Your task to perform on an android device: uninstall "Skype" Image 0: 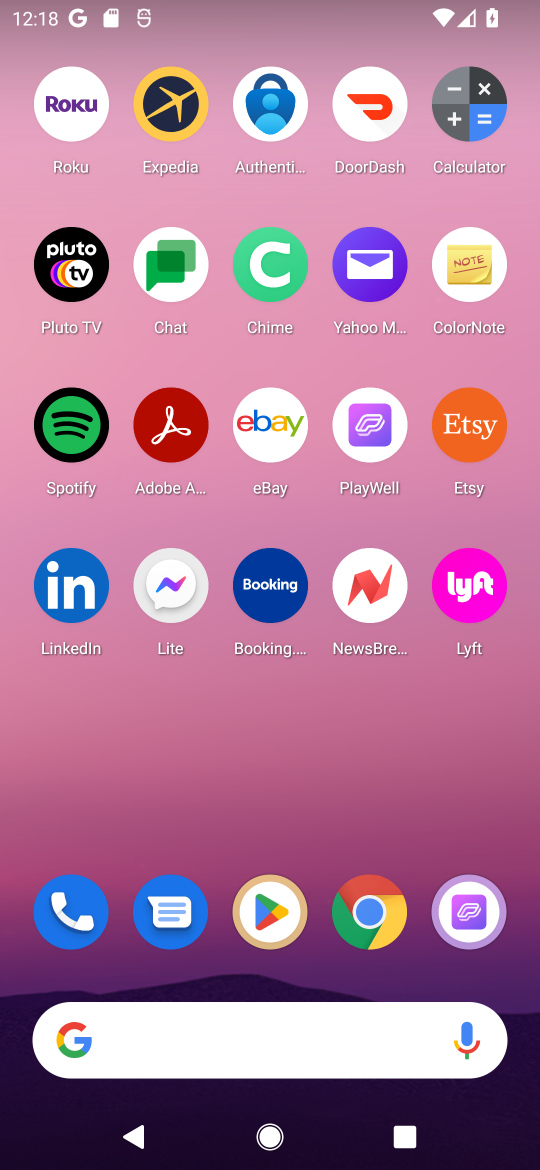
Step 0: click (255, 909)
Your task to perform on an android device: uninstall "Skype" Image 1: 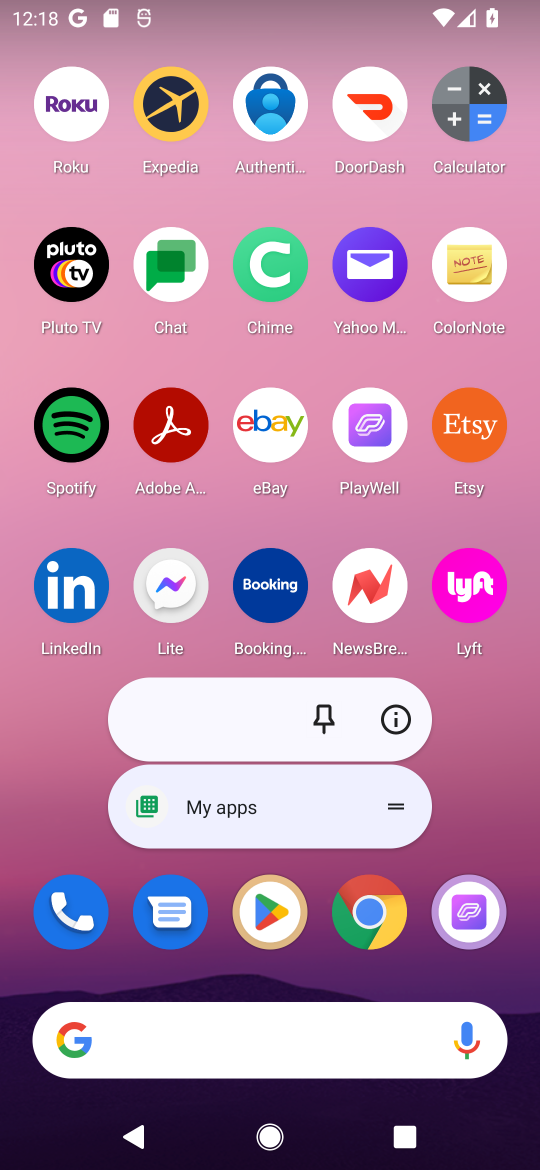
Step 1: click (281, 920)
Your task to perform on an android device: uninstall "Skype" Image 2: 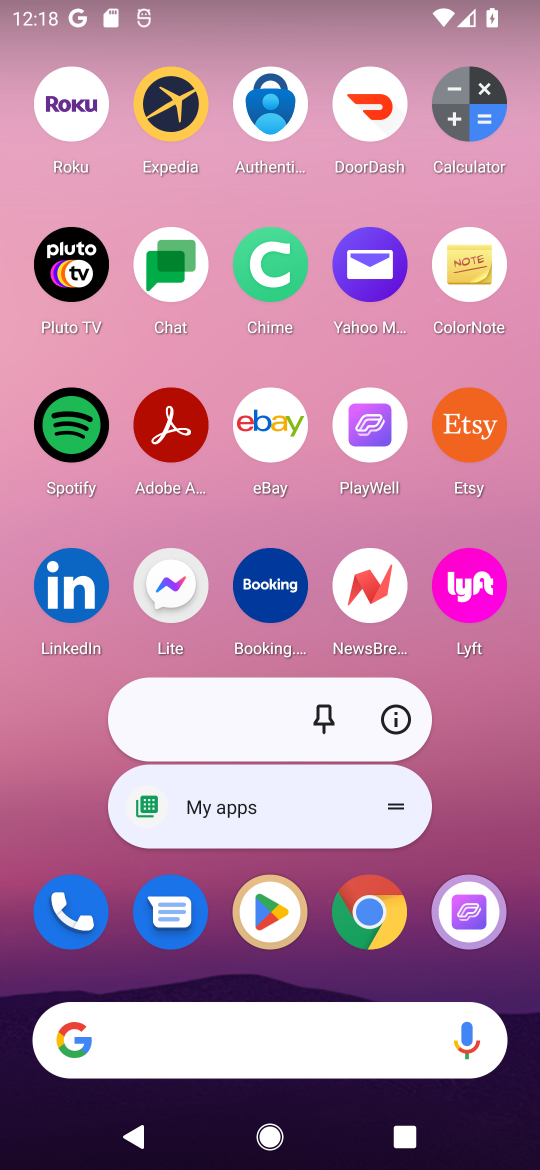
Step 2: click (281, 918)
Your task to perform on an android device: uninstall "Skype" Image 3: 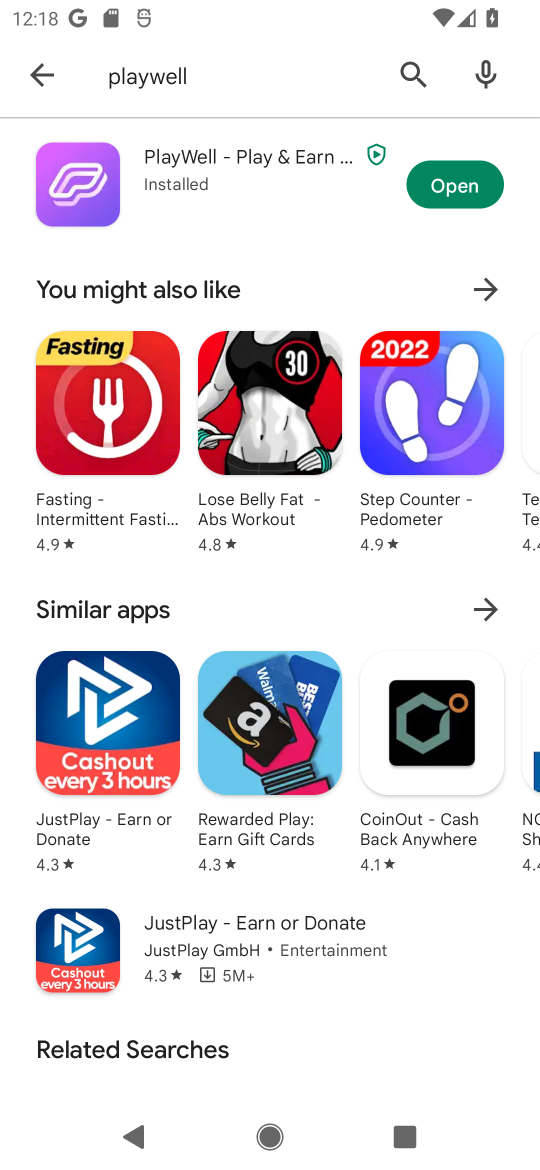
Step 3: click (420, 81)
Your task to perform on an android device: uninstall "Skype" Image 4: 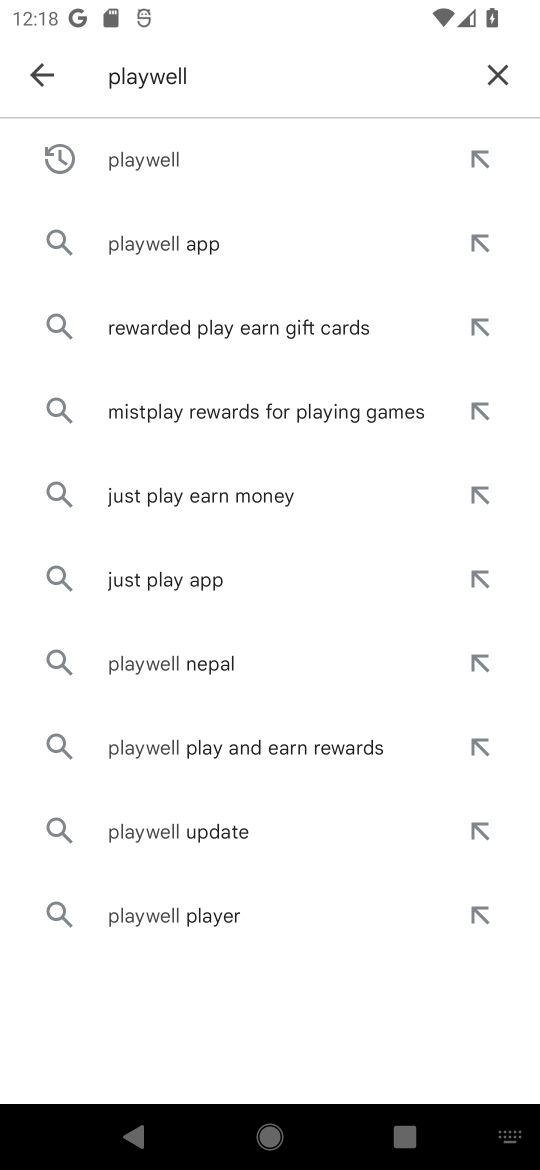
Step 4: click (525, 67)
Your task to perform on an android device: uninstall "Skype" Image 5: 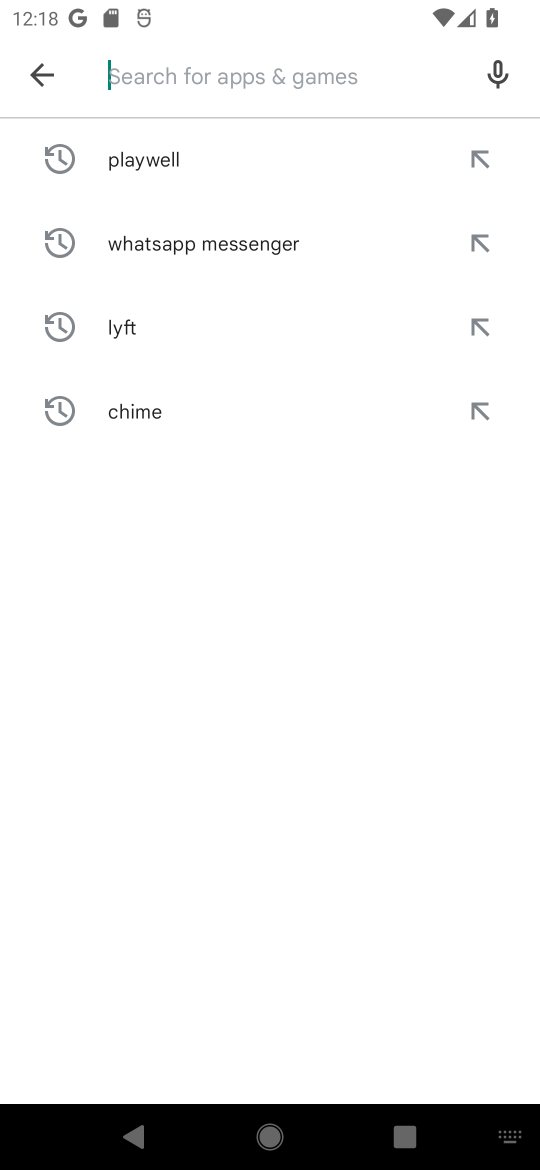
Step 5: click (219, 88)
Your task to perform on an android device: uninstall "Skype" Image 6: 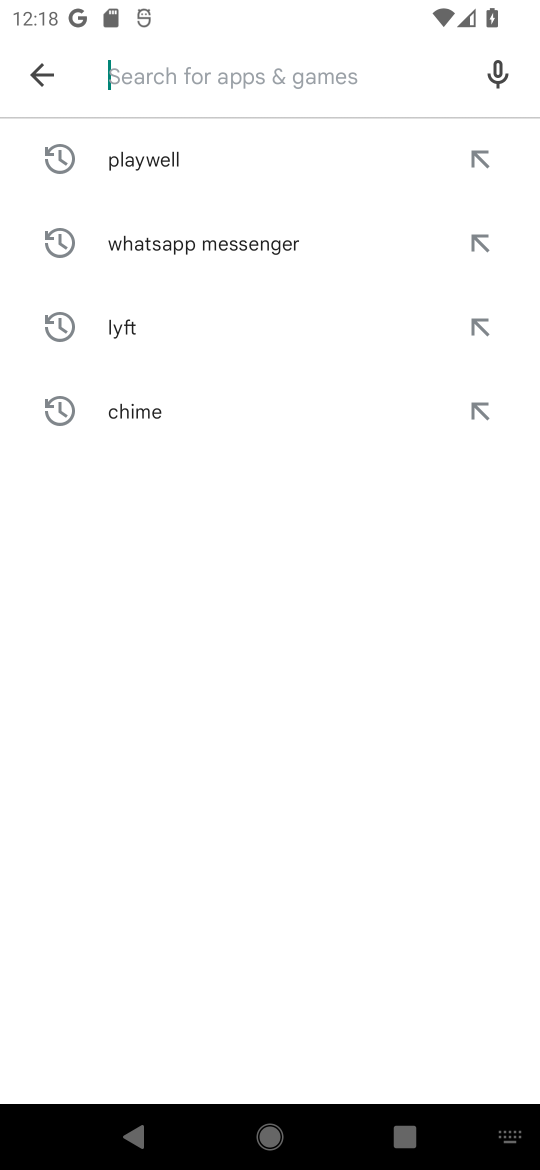
Step 6: type "skype"
Your task to perform on an android device: uninstall "Skype" Image 7: 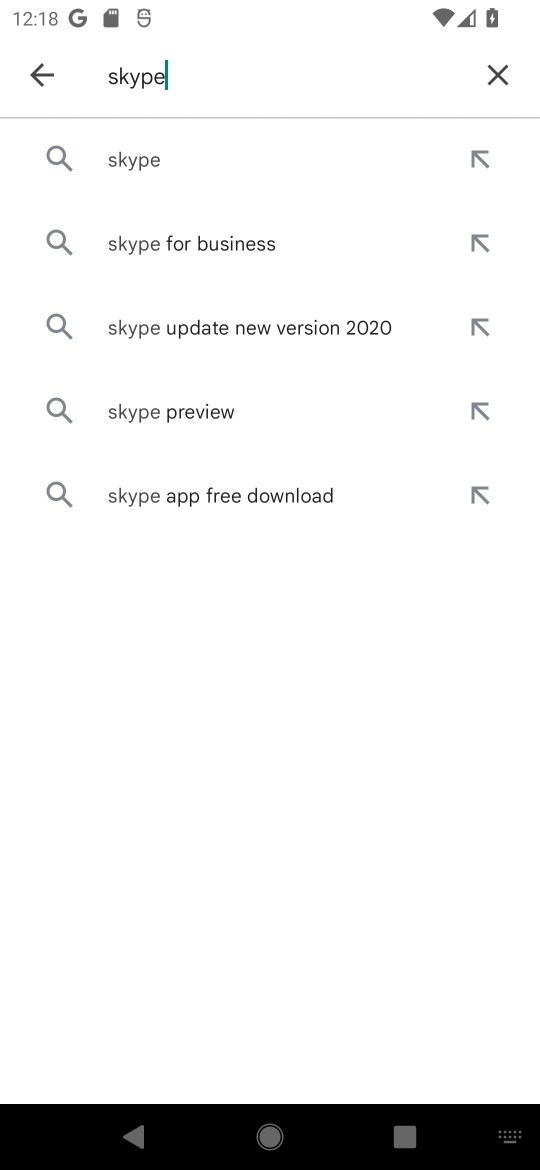
Step 7: click (184, 145)
Your task to perform on an android device: uninstall "Skype" Image 8: 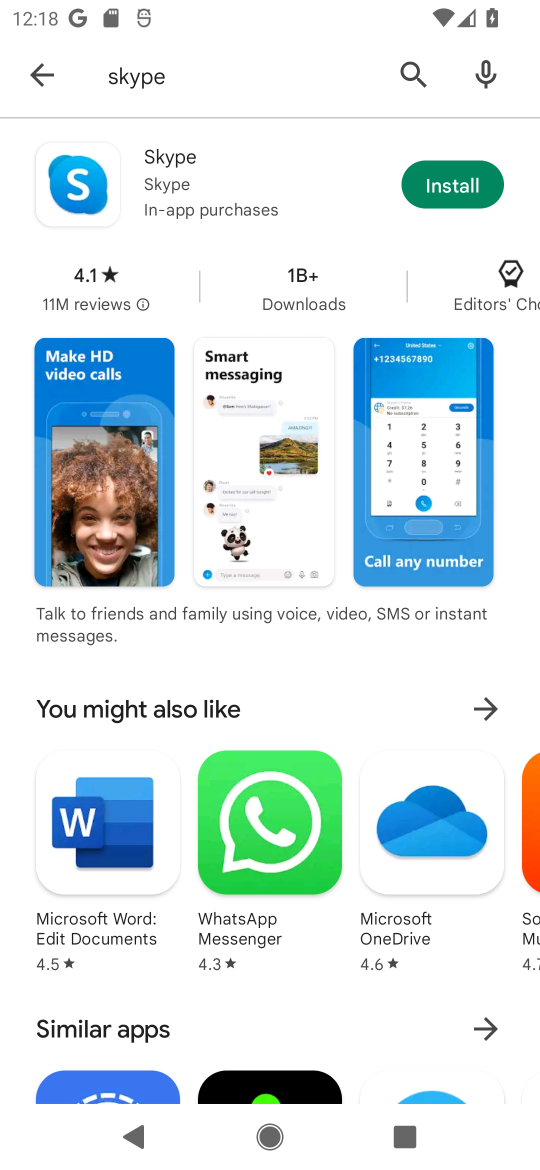
Step 8: click (197, 200)
Your task to perform on an android device: uninstall "Skype" Image 9: 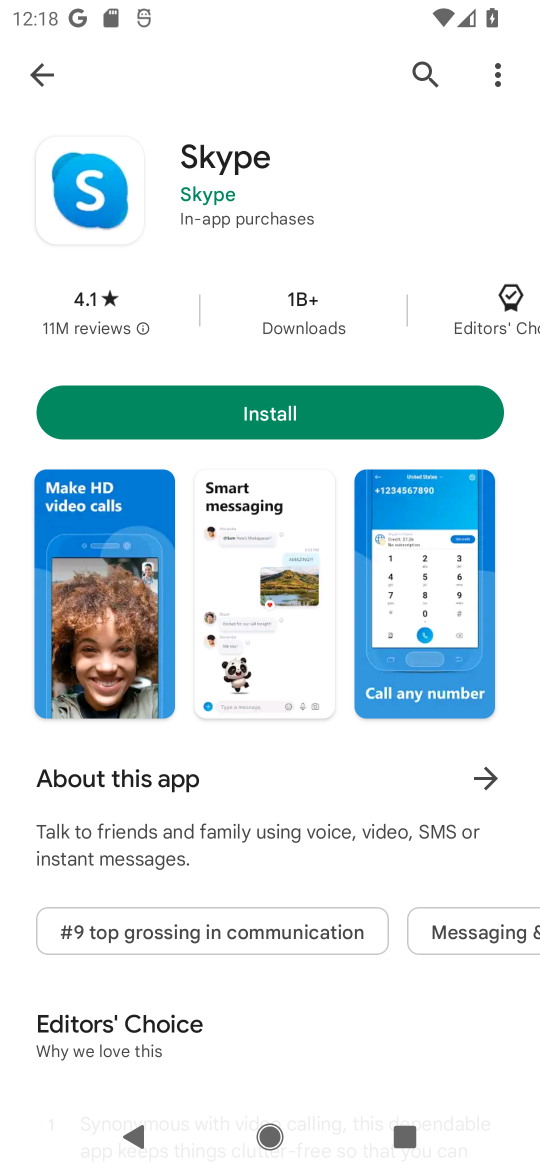
Step 9: task complete